Your task to perform on an android device: What's the weather? Image 0: 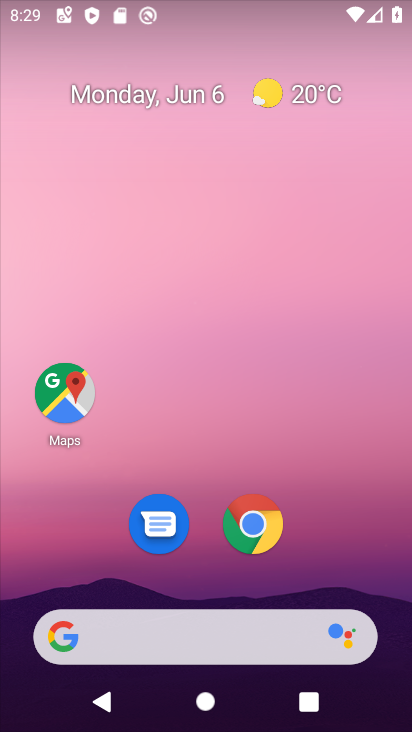
Step 0: click (267, 91)
Your task to perform on an android device: What's the weather? Image 1: 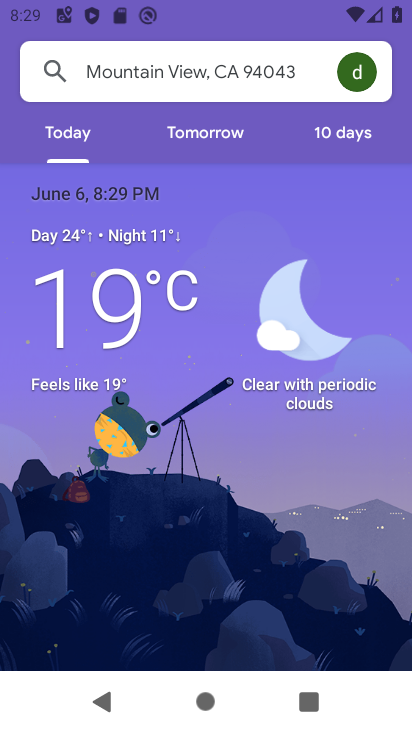
Step 1: task complete